Your task to perform on an android device: turn pop-ups off in chrome Image 0: 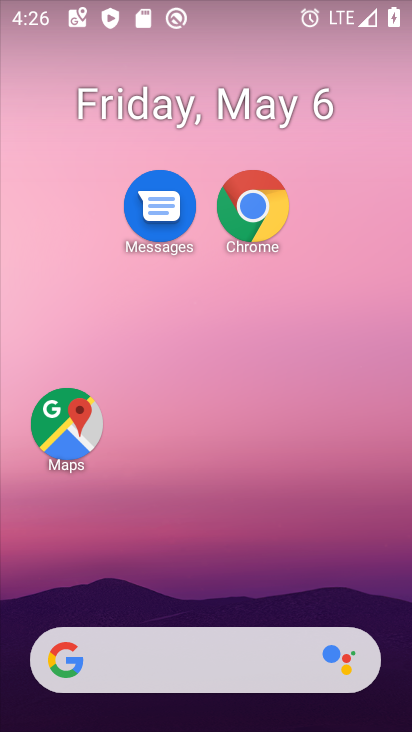
Step 0: click (248, 218)
Your task to perform on an android device: turn pop-ups off in chrome Image 1: 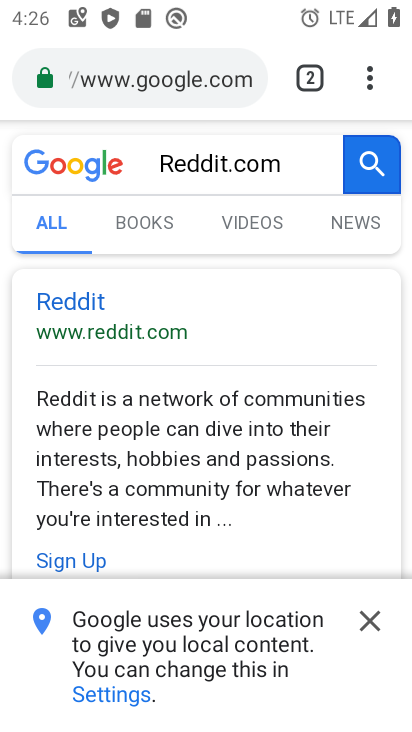
Step 1: click (368, 79)
Your task to perform on an android device: turn pop-ups off in chrome Image 2: 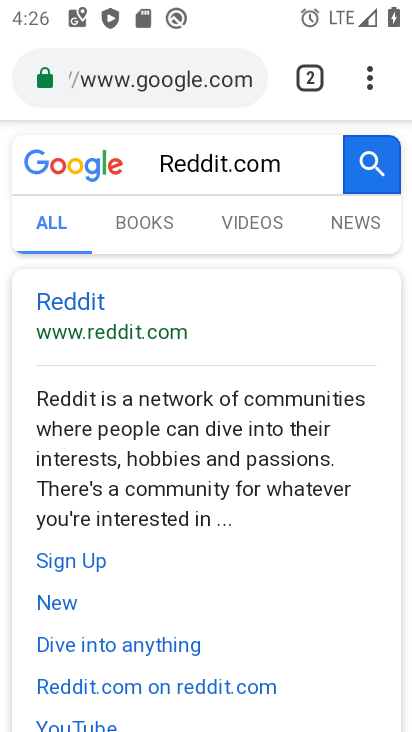
Step 2: click (374, 73)
Your task to perform on an android device: turn pop-ups off in chrome Image 3: 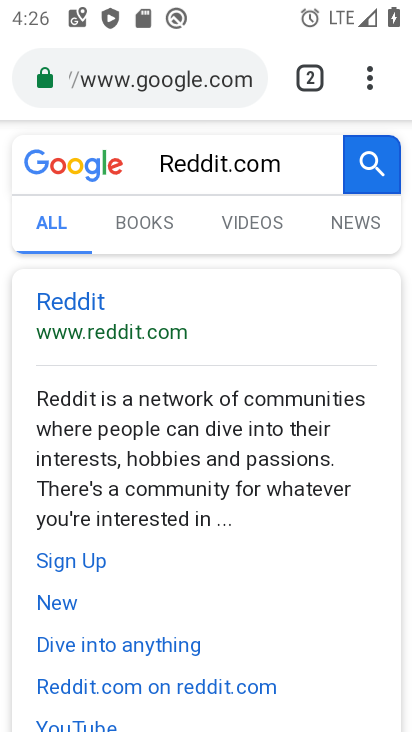
Step 3: click (369, 85)
Your task to perform on an android device: turn pop-ups off in chrome Image 4: 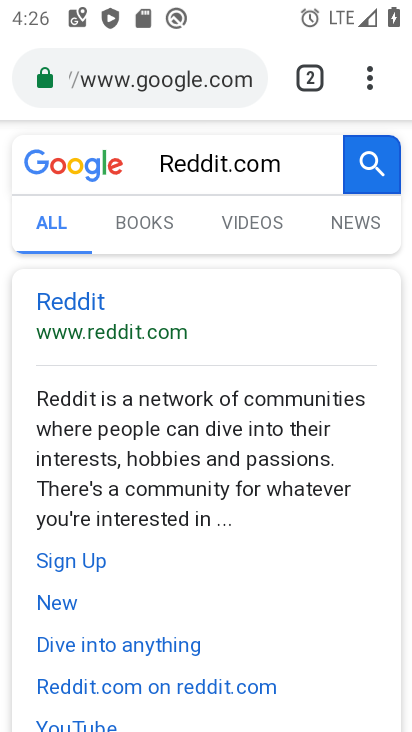
Step 4: click (369, 85)
Your task to perform on an android device: turn pop-ups off in chrome Image 5: 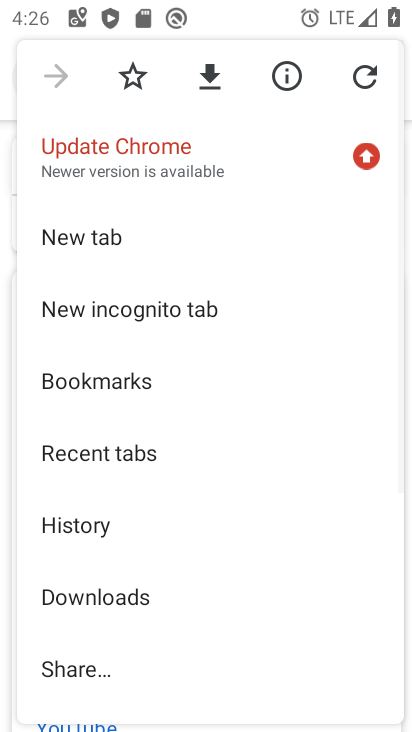
Step 5: drag from (168, 700) to (211, 268)
Your task to perform on an android device: turn pop-ups off in chrome Image 6: 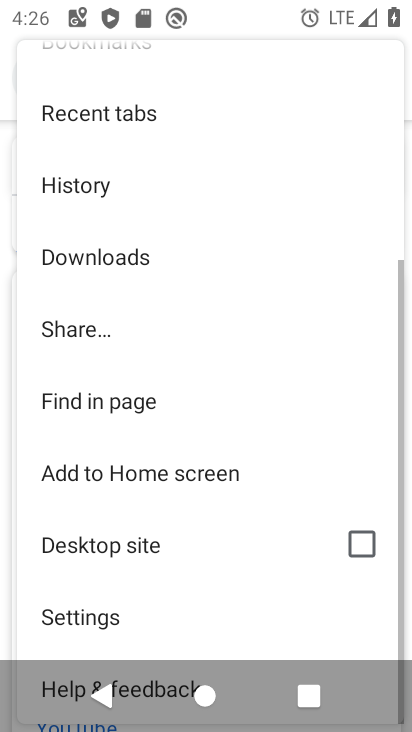
Step 6: click (80, 608)
Your task to perform on an android device: turn pop-ups off in chrome Image 7: 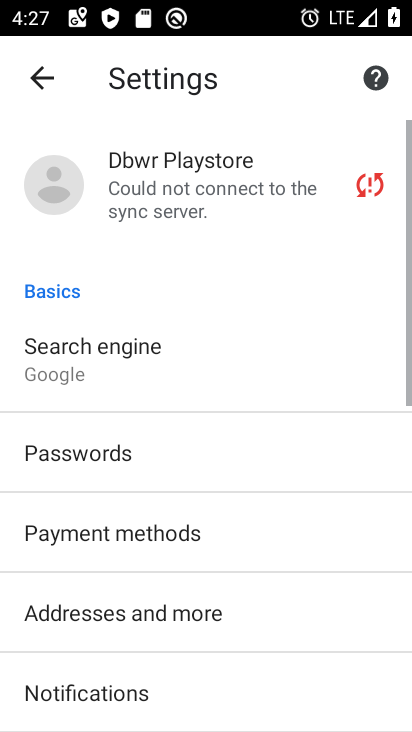
Step 7: drag from (123, 693) to (148, 394)
Your task to perform on an android device: turn pop-ups off in chrome Image 8: 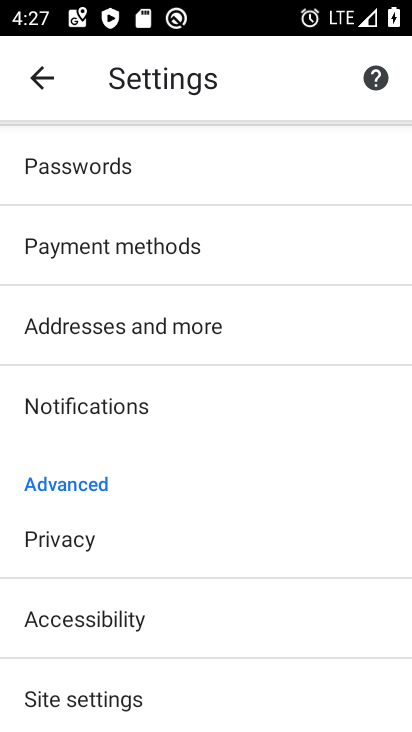
Step 8: drag from (142, 684) to (144, 393)
Your task to perform on an android device: turn pop-ups off in chrome Image 9: 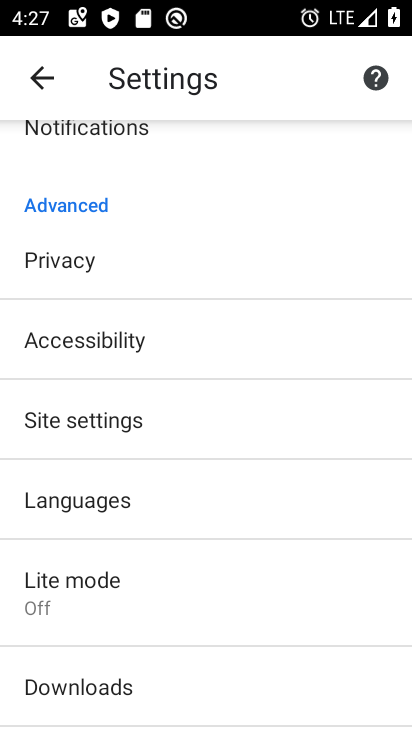
Step 9: click (74, 423)
Your task to perform on an android device: turn pop-ups off in chrome Image 10: 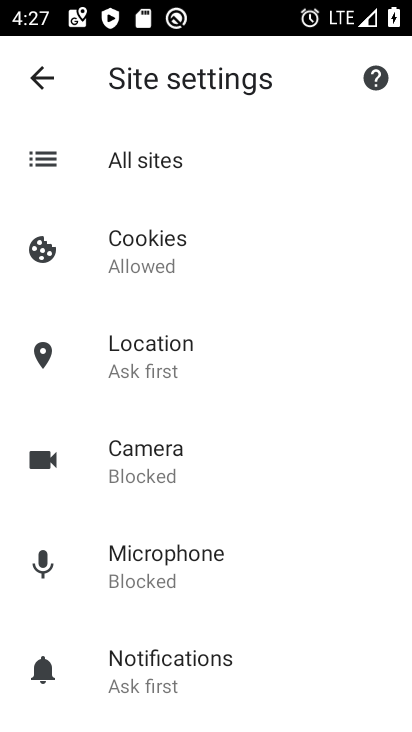
Step 10: drag from (140, 683) to (173, 321)
Your task to perform on an android device: turn pop-ups off in chrome Image 11: 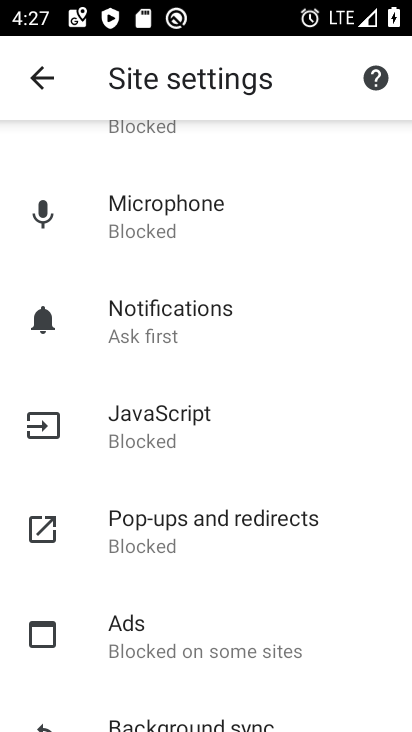
Step 11: drag from (144, 685) to (184, 321)
Your task to perform on an android device: turn pop-ups off in chrome Image 12: 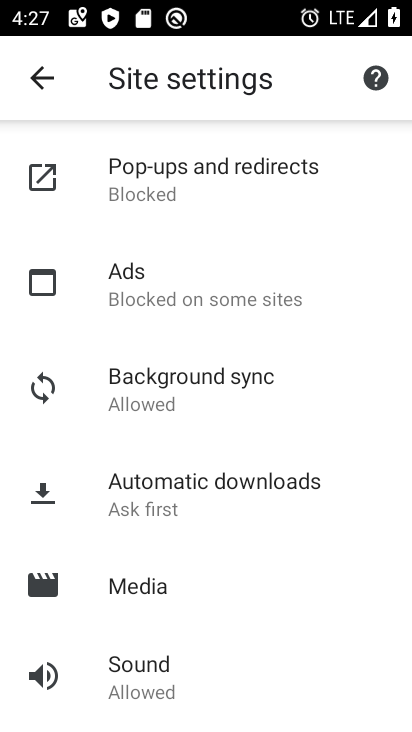
Step 12: drag from (170, 688) to (163, 378)
Your task to perform on an android device: turn pop-ups off in chrome Image 13: 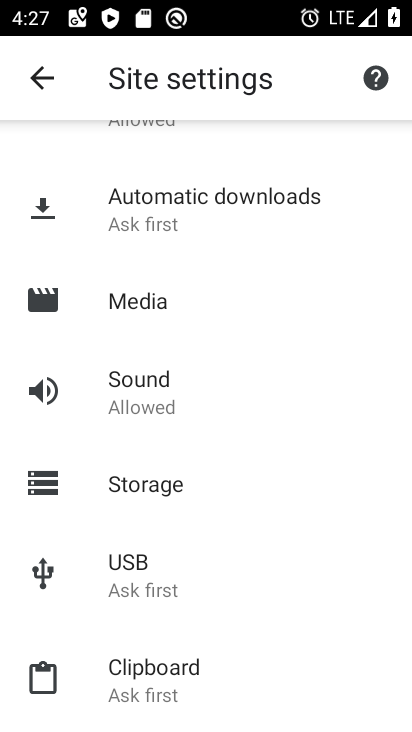
Step 13: drag from (149, 656) to (139, 342)
Your task to perform on an android device: turn pop-ups off in chrome Image 14: 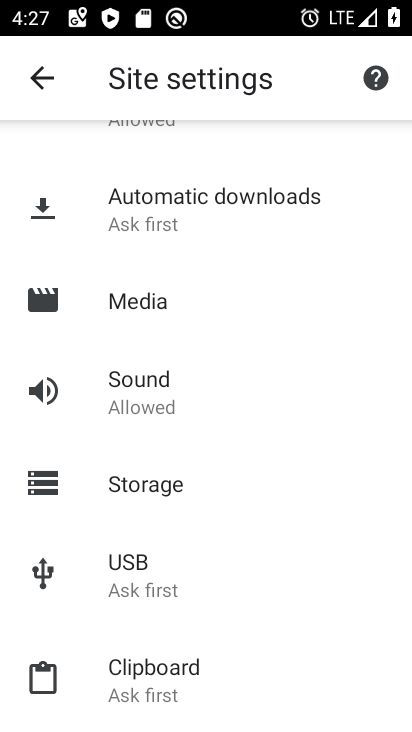
Step 14: drag from (197, 180) to (192, 545)
Your task to perform on an android device: turn pop-ups off in chrome Image 15: 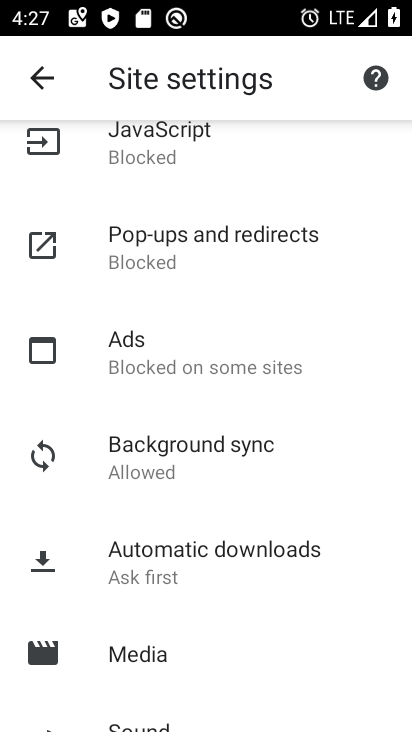
Step 15: click (166, 254)
Your task to perform on an android device: turn pop-ups off in chrome Image 16: 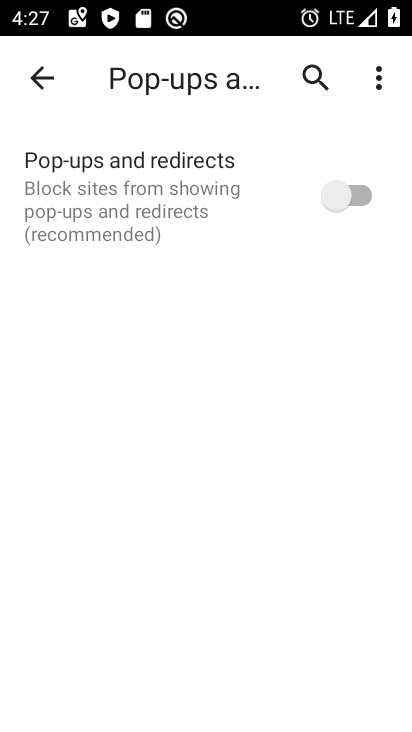
Step 16: click (368, 195)
Your task to perform on an android device: turn pop-ups off in chrome Image 17: 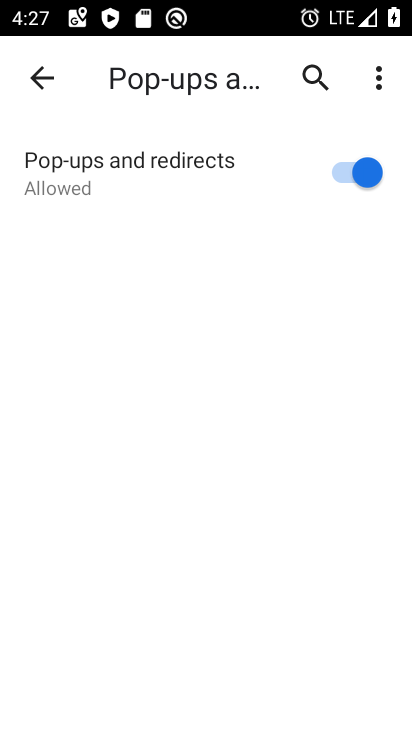
Step 17: click (336, 179)
Your task to perform on an android device: turn pop-ups off in chrome Image 18: 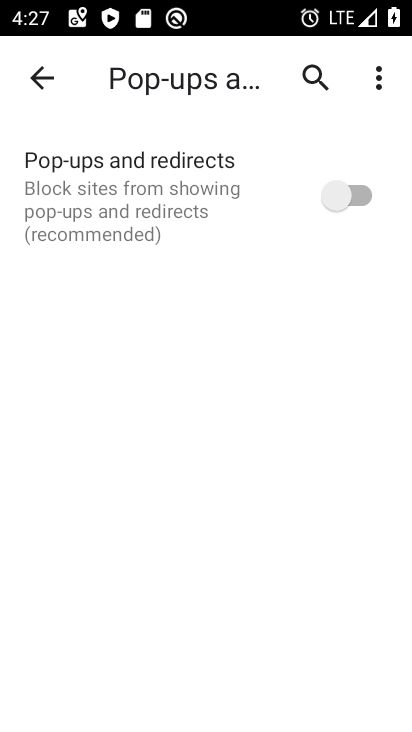
Step 18: task complete